Your task to perform on an android device: Open notification settings Image 0: 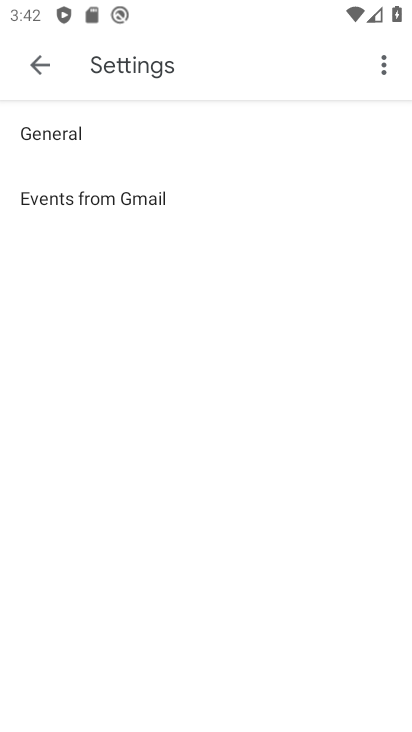
Step 0: press home button
Your task to perform on an android device: Open notification settings Image 1: 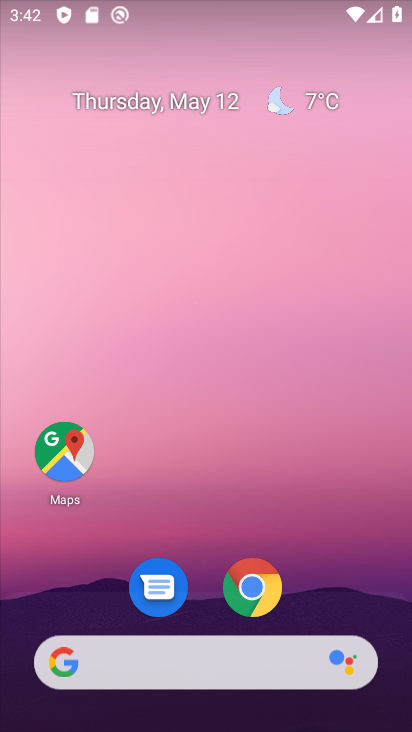
Step 1: drag from (320, 573) to (349, 194)
Your task to perform on an android device: Open notification settings Image 2: 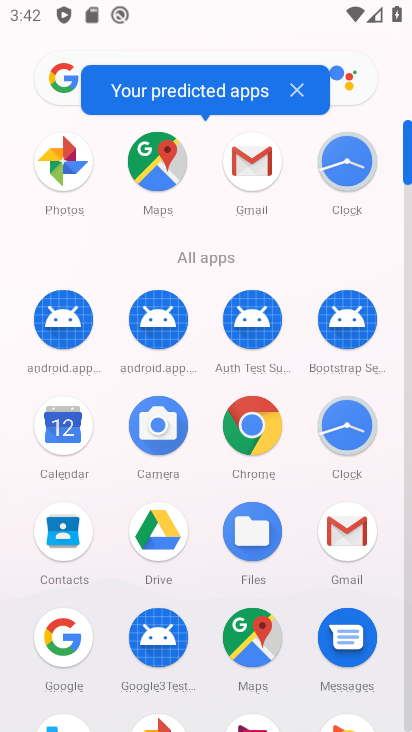
Step 2: drag from (213, 603) to (208, 326)
Your task to perform on an android device: Open notification settings Image 3: 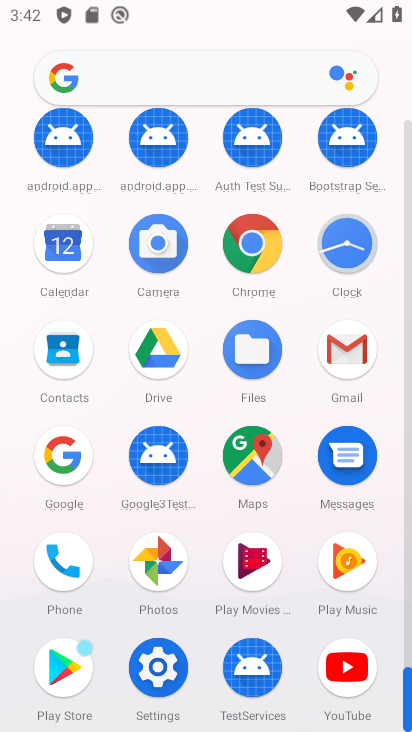
Step 3: click (161, 677)
Your task to perform on an android device: Open notification settings Image 4: 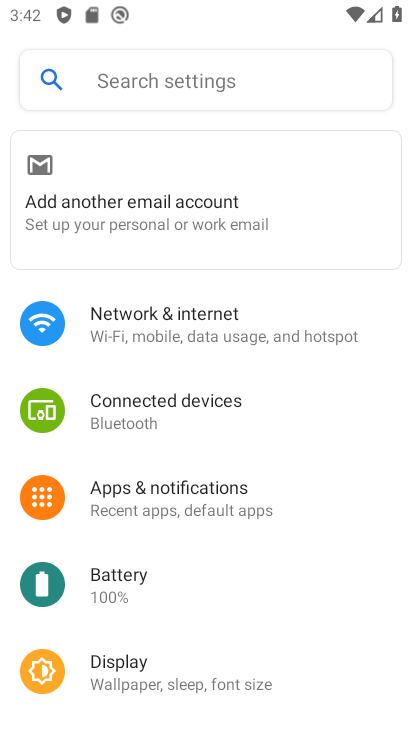
Step 4: click (171, 501)
Your task to perform on an android device: Open notification settings Image 5: 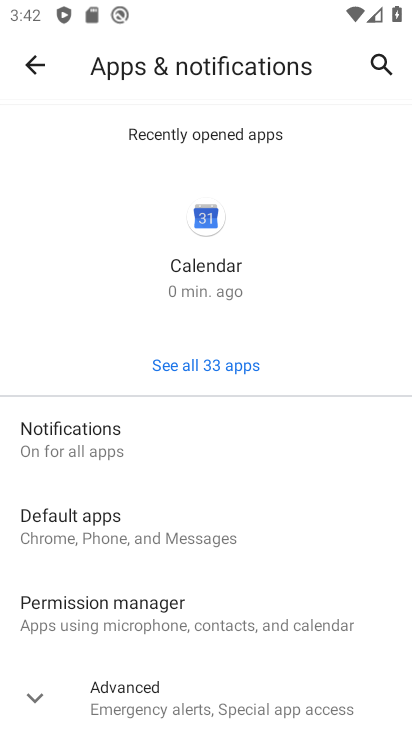
Step 5: click (189, 431)
Your task to perform on an android device: Open notification settings Image 6: 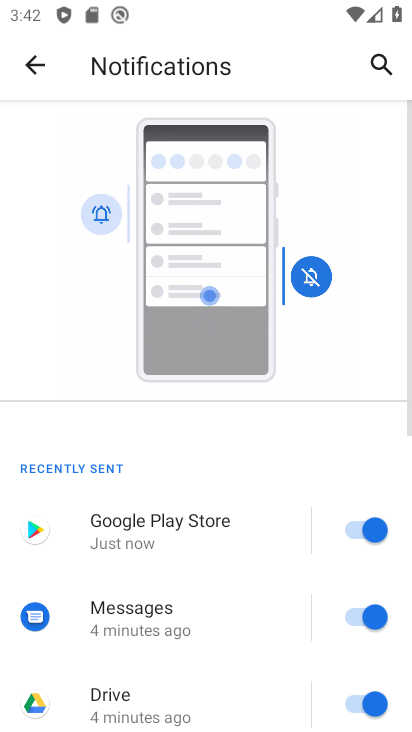
Step 6: task complete